Your task to perform on an android device: toggle translation in the chrome app Image 0: 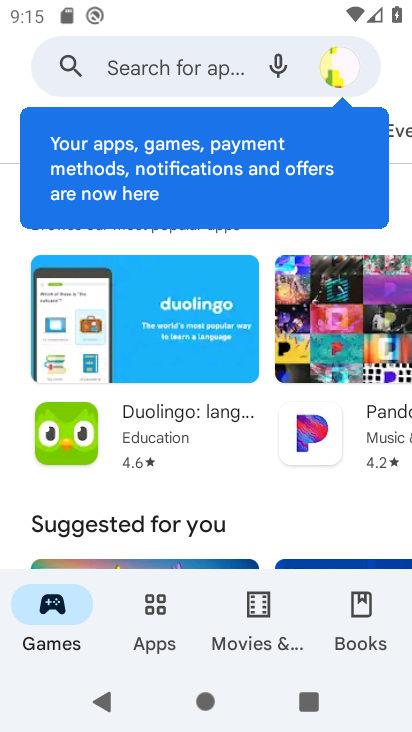
Step 0: press home button
Your task to perform on an android device: toggle translation in the chrome app Image 1: 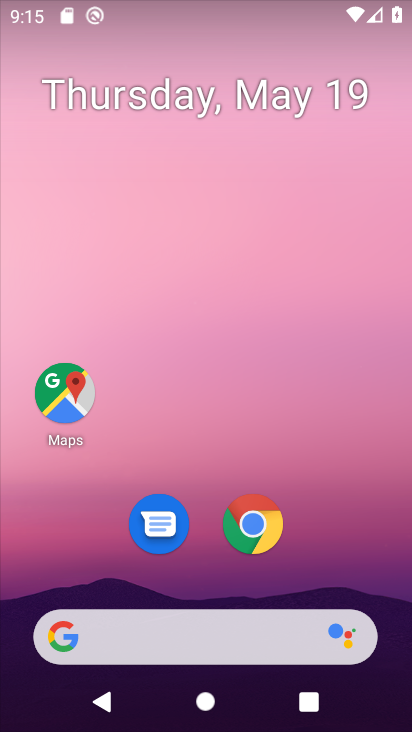
Step 1: click (260, 520)
Your task to perform on an android device: toggle translation in the chrome app Image 2: 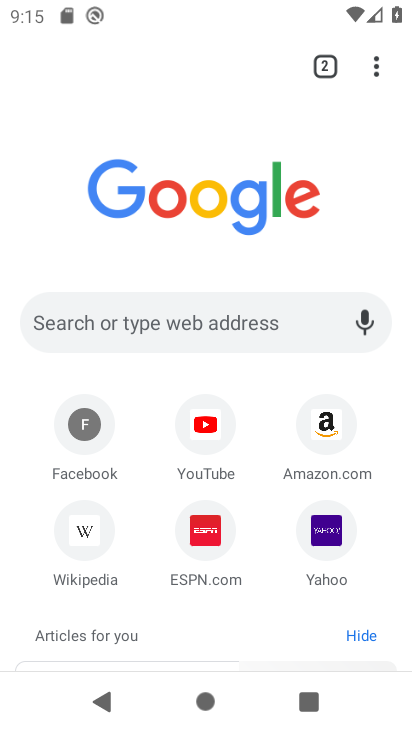
Step 2: click (373, 59)
Your task to perform on an android device: toggle translation in the chrome app Image 3: 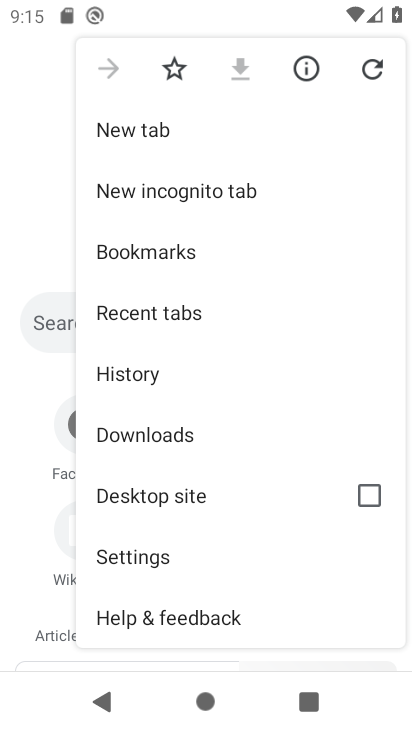
Step 3: click (168, 550)
Your task to perform on an android device: toggle translation in the chrome app Image 4: 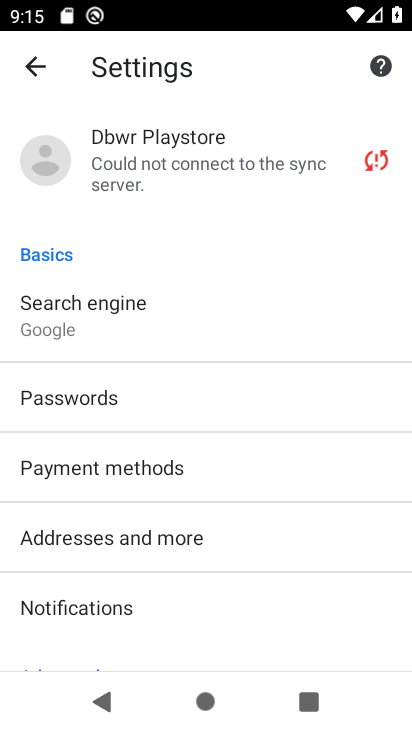
Step 4: drag from (233, 551) to (263, 314)
Your task to perform on an android device: toggle translation in the chrome app Image 5: 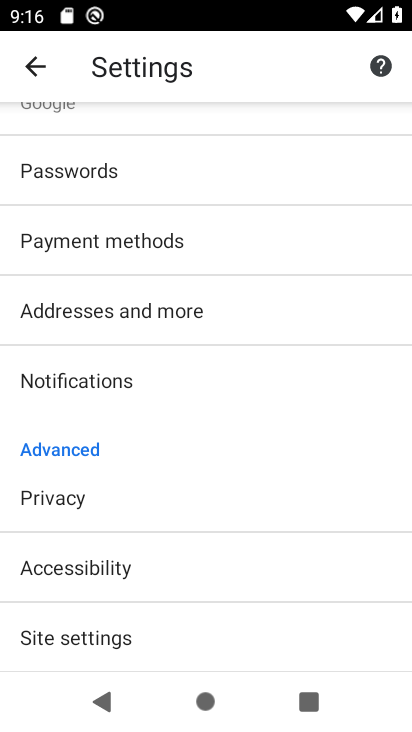
Step 5: drag from (234, 372) to (252, 182)
Your task to perform on an android device: toggle translation in the chrome app Image 6: 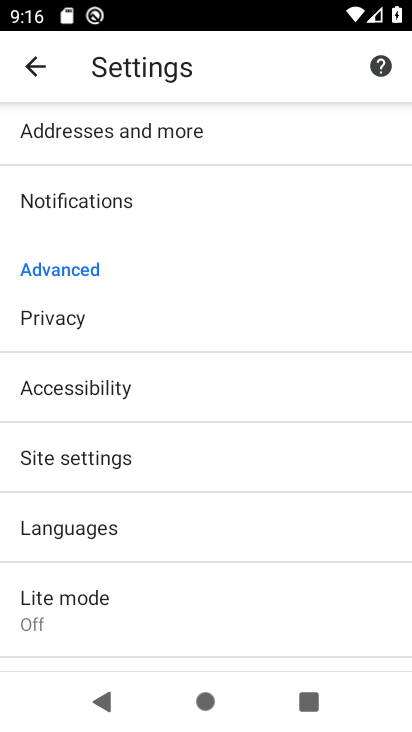
Step 6: click (182, 525)
Your task to perform on an android device: toggle translation in the chrome app Image 7: 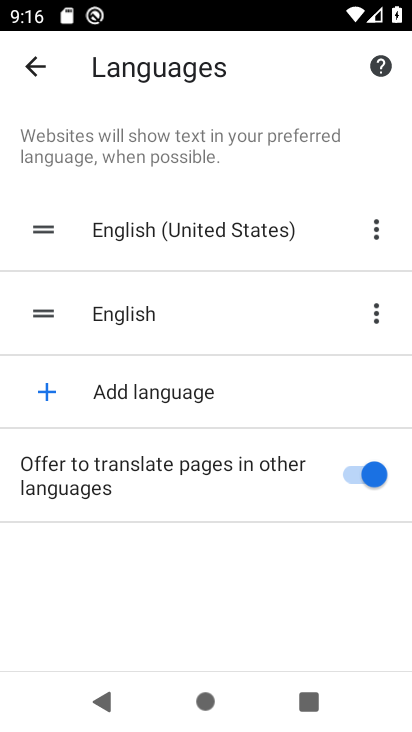
Step 7: click (356, 469)
Your task to perform on an android device: toggle translation in the chrome app Image 8: 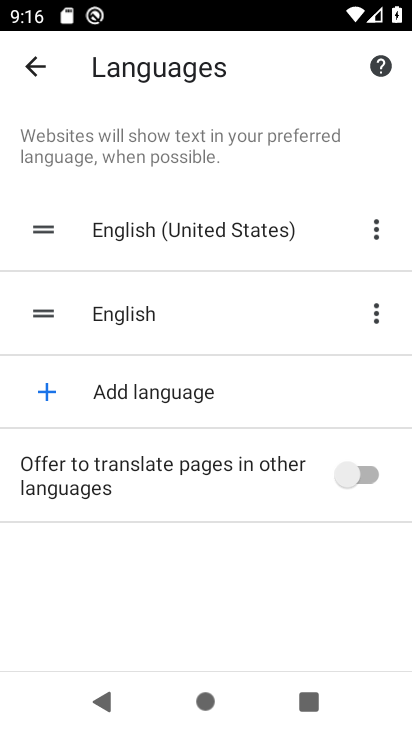
Step 8: task complete